Your task to perform on an android device: star an email in the gmail app Image 0: 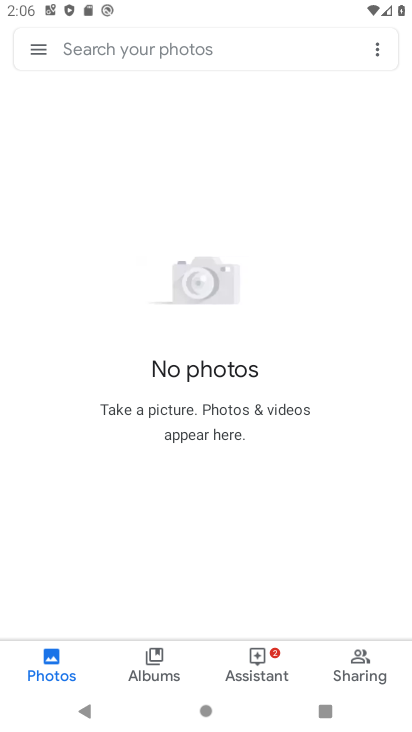
Step 0: press home button
Your task to perform on an android device: star an email in the gmail app Image 1: 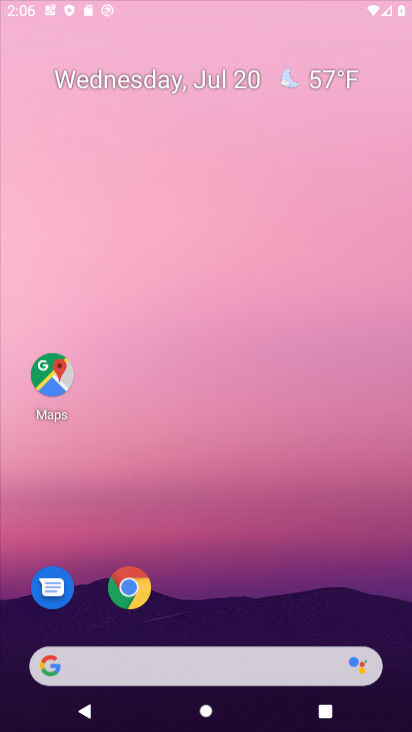
Step 1: drag from (391, 654) to (210, 28)
Your task to perform on an android device: star an email in the gmail app Image 2: 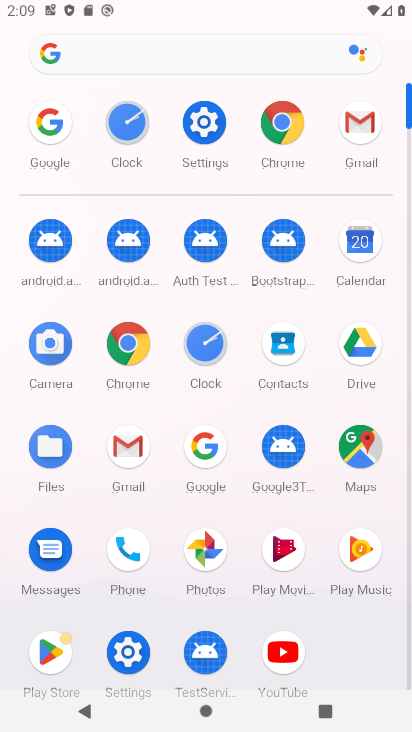
Step 2: click (137, 435)
Your task to perform on an android device: star an email in the gmail app Image 3: 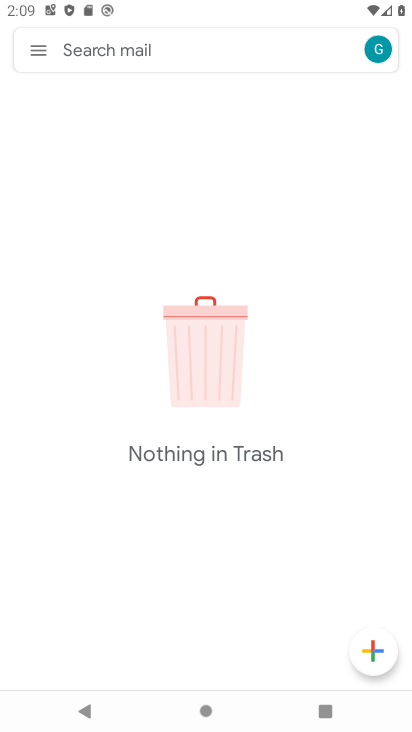
Step 3: task complete